Your task to perform on an android device: turn off notifications in google photos Image 0: 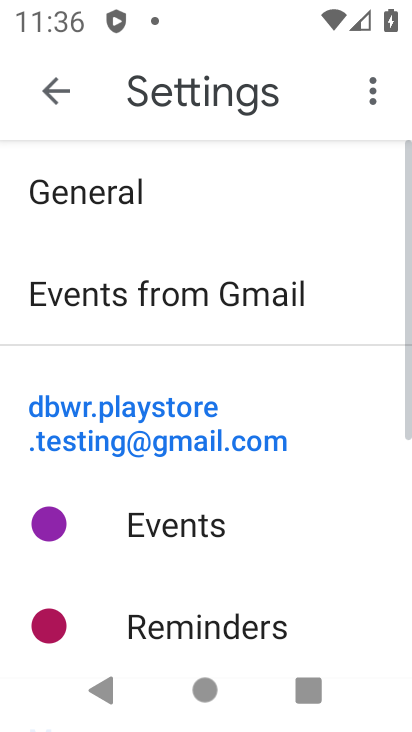
Step 0: press home button
Your task to perform on an android device: turn off notifications in google photos Image 1: 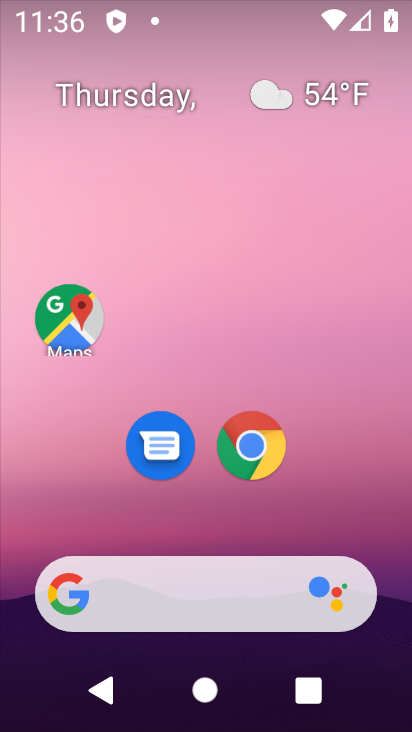
Step 1: drag from (384, 528) to (309, 64)
Your task to perform on an android device: turn off notifications in google photos Image 2: 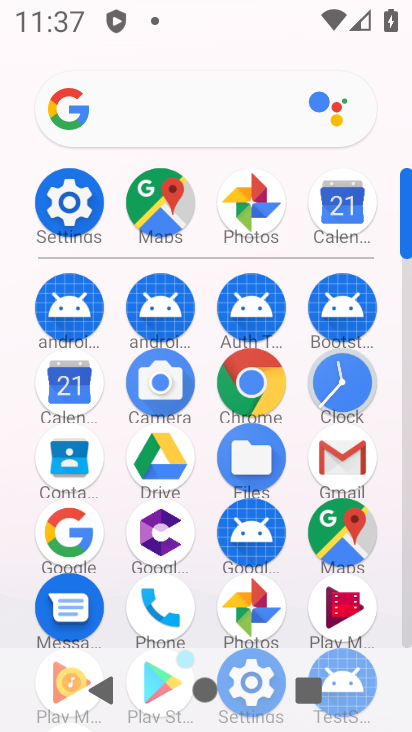
Step 2: click (242, 603)
Your task to perform on an android device: turn off notifications in google photos Image 3: 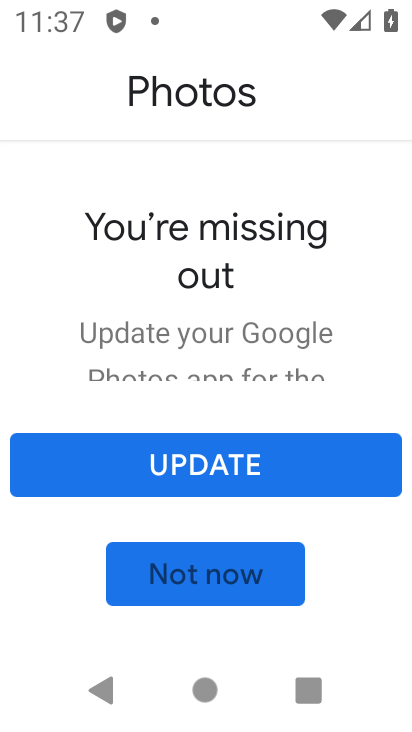
Step 3: click (264, 485)
Your task to perform on an android device: turn off notifications in google photos Image 4: 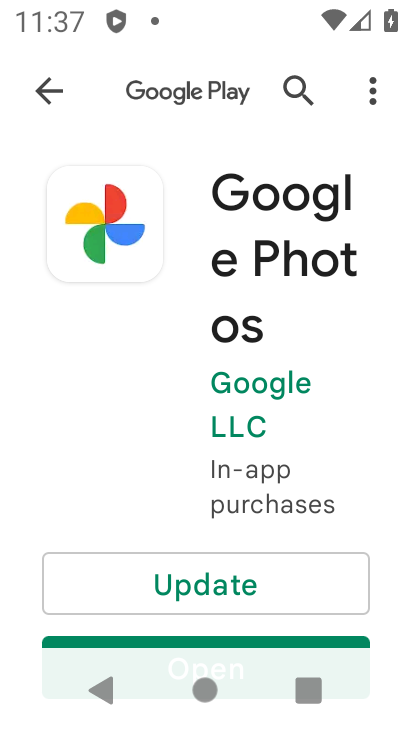
Step 4: click (195, 570)
Your task to perform on an android device: turn off notifications in google photos Image 5: 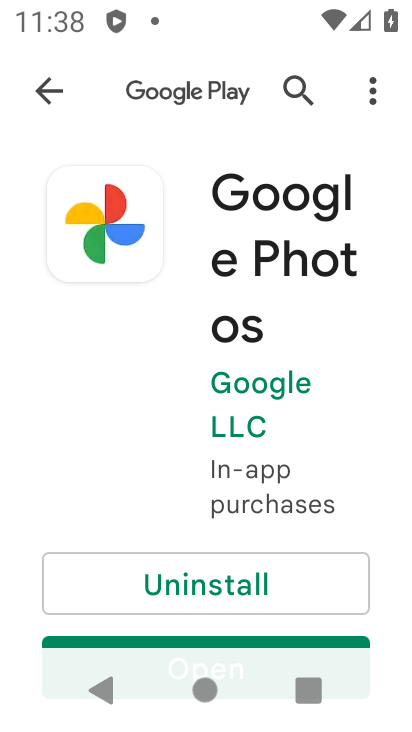
Step 5: drag from (272, 622) to (342, 189)
Your task to perform on an android device: turn off notifications in google photos Image 6: 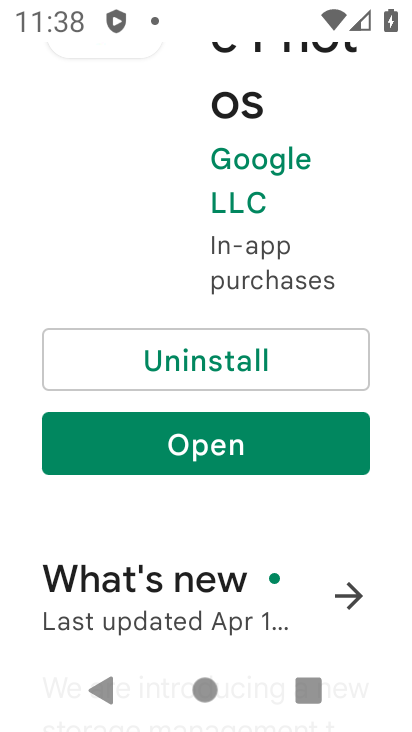
Step 6: click (193, 454)
Your task to perform on an android device: turn off notifications in google photos Image 7: 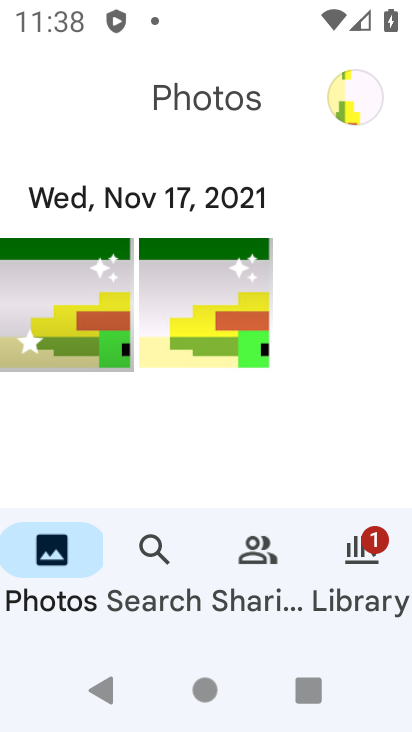
Step 7: click (354, 107)
Your task to perform on an android device: turn off notifications in google photos Image 8: 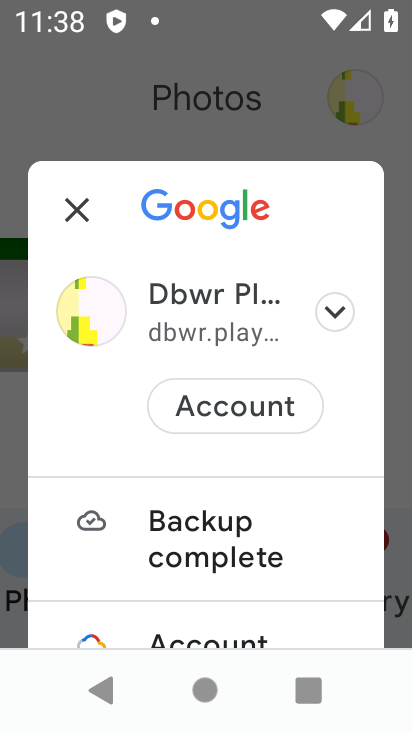
Step 8: drag from (191, 579) to (282, 201)
Your task to perform on an android device: turn off notifications in google photos Image 9: 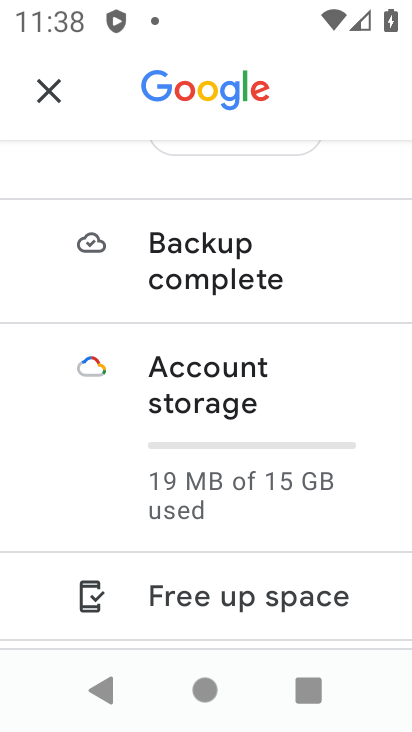
Step 9: drag from (236, 404) to (238, 188)
Your task to perform on an android device: turn off notifications in google photos Image 10: 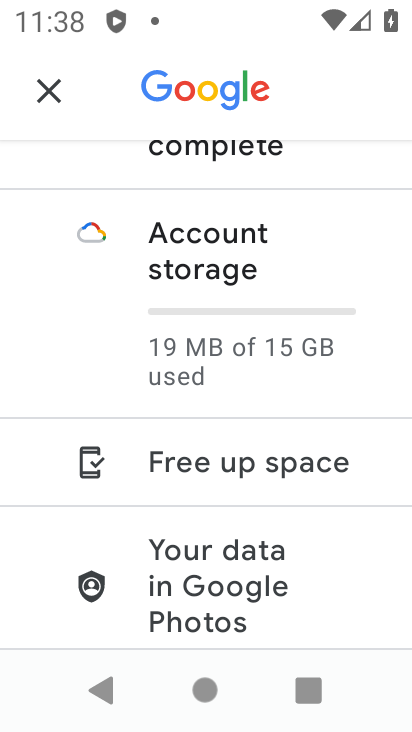
Step 10: drag from (195, 567) to (245, 208)
Your task to perform on an android device: turn off notifications in google photos Image 11: 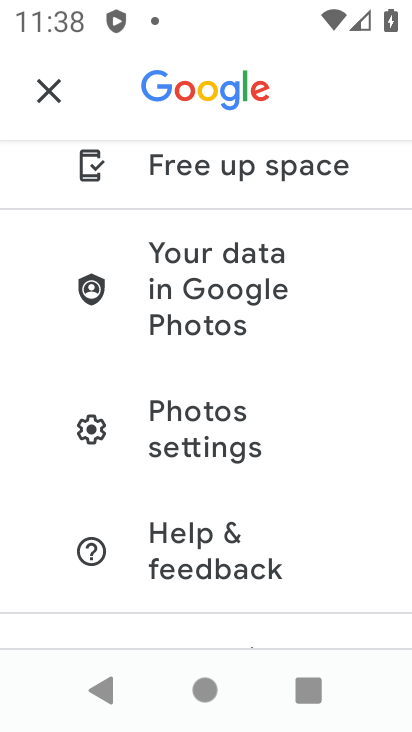
Step 11: click (221, 442)
Your task to perform on an android device: turn off notifications in google photos Image 12: 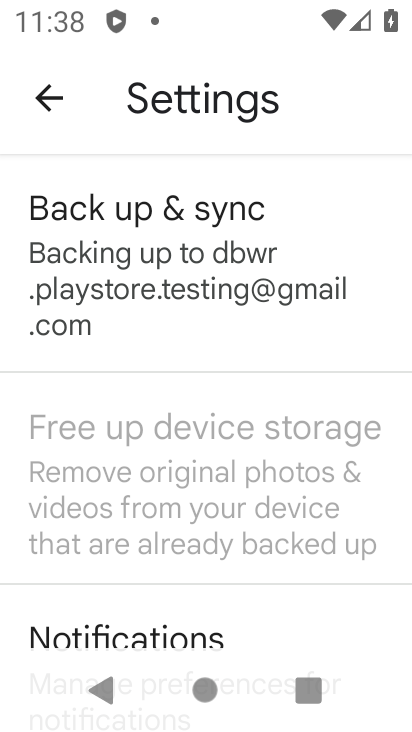
Step 12: drag from (166, 601) to (203, 250)
Your task to perform on an android device: turn off notifications in google photos Image 13: 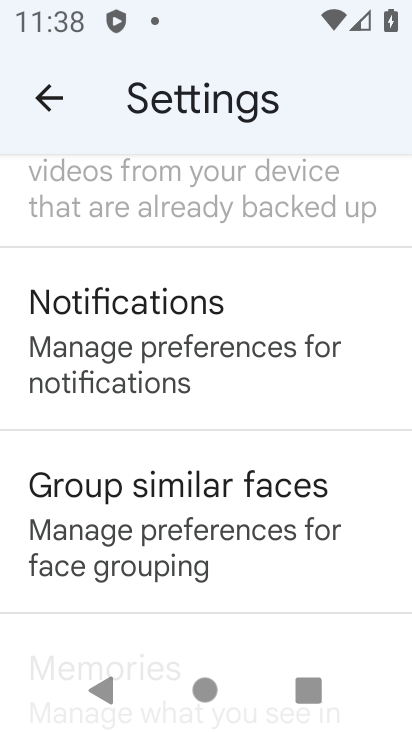
Step 13: click (233, 365)
Your task to perform on an android device: turn off notifications in google photos Image 14: 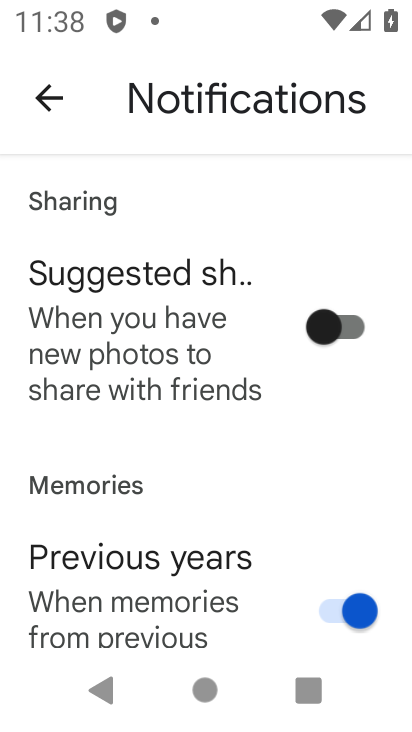
Step 14: task complete